Your task to perform on an android device: check out phone information Image 0: 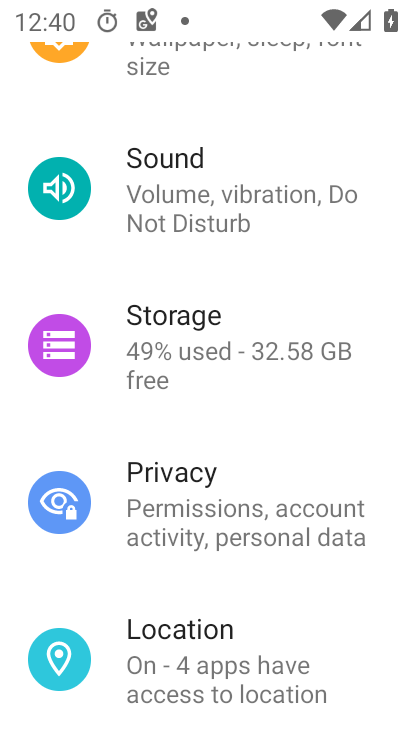
Step 0: drag from (248, 548) to (306, 166)
Your task to perform on an android device: check out phone information Image 1: 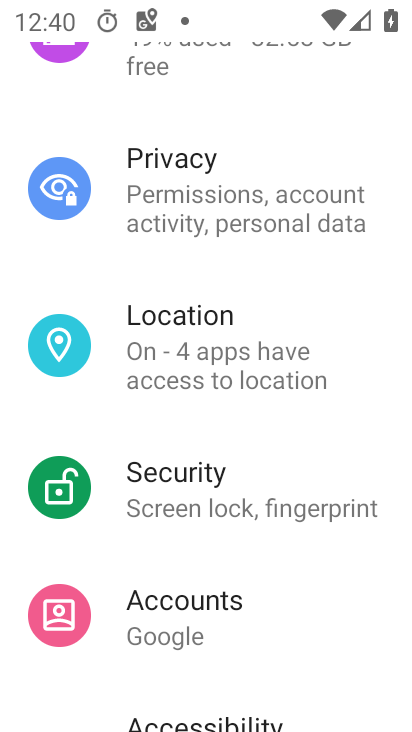
Step 1: drag from (210, 605) to (254, 149)
Your task to perform on an android device: check out phone information Image 2: 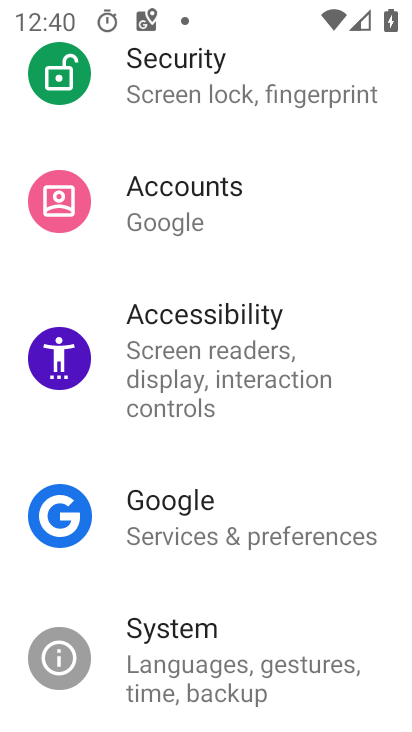
Step 2: drag from (255, 297) to (272, 106)
Your task to perform on an android device: check out phone information Image 3: 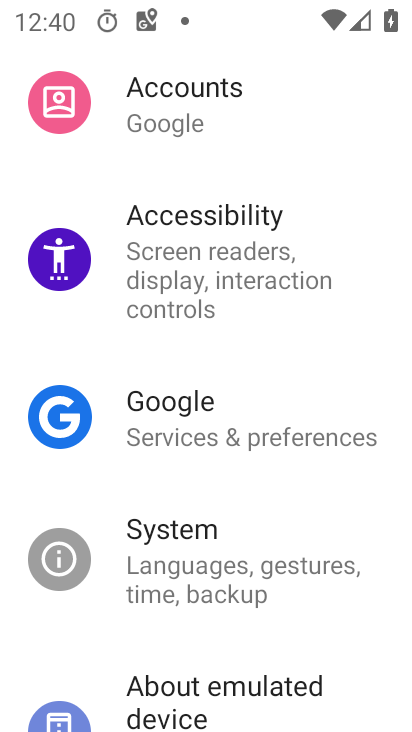
Step 3: drag from (198, 597) to (253, 163)
Your task to perform on an android device: check out phone information Image 4: 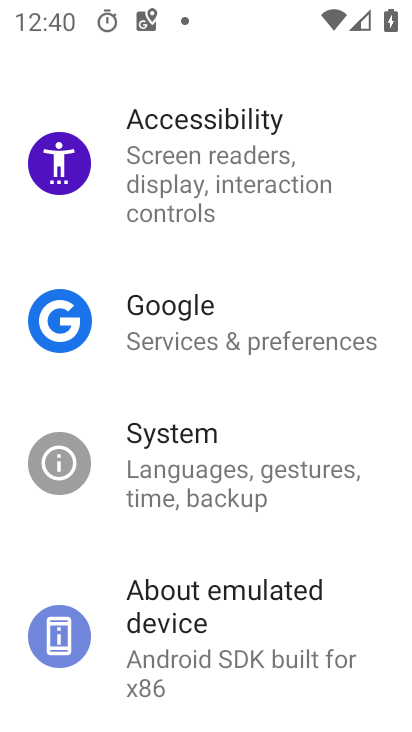
Step 4: drag from (233, 586) to (280, 162)
Your task to perform on an android device: check out phone information Image 5: 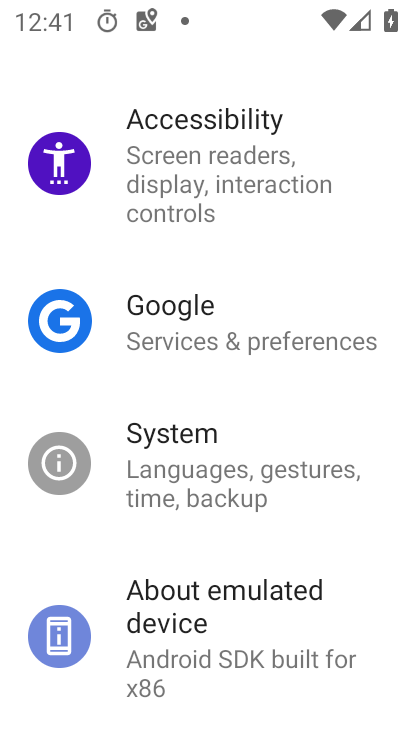
Step 5: click (247, 617)
Your task to perform on an android device: check out phone information Image 6: 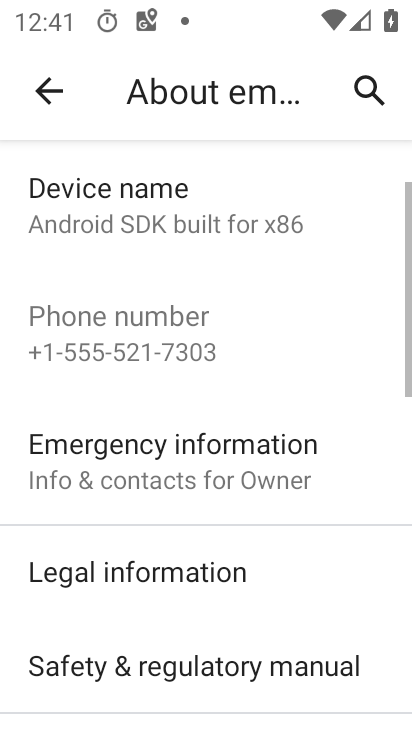
Step 6: task complete